Your task to perform on an android device: Go to privacy settings Image 0: 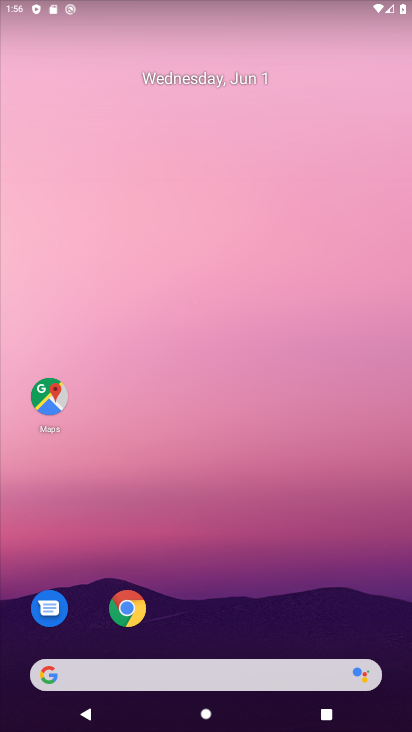
Step 0: drag from (362, 607) to (211, 92)
Your task to perform on an android device: Go to privacy settings Image 1: 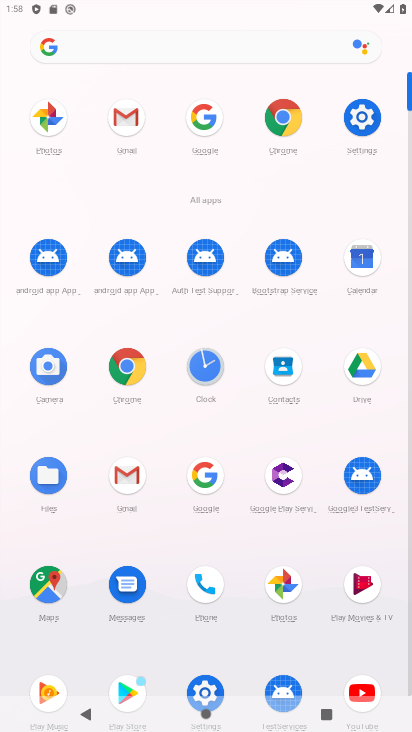
Step 1: click (366, 133)
Your task to perform on an android device: Go to privacy settings Image 2: 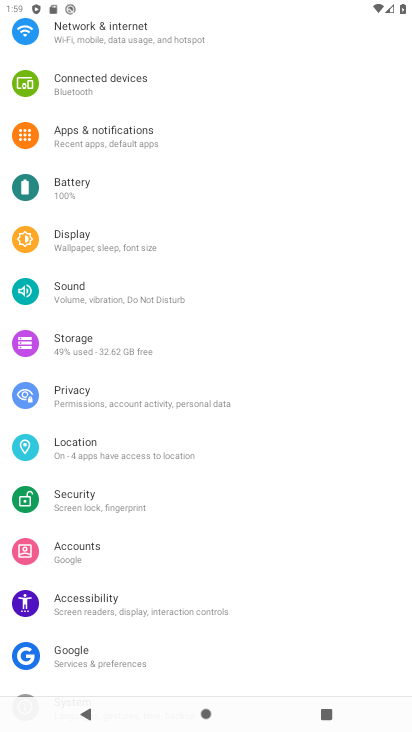
Step 2: click (106, 404)
Your task to perform on an android device: Go to privacy settings Image 3: 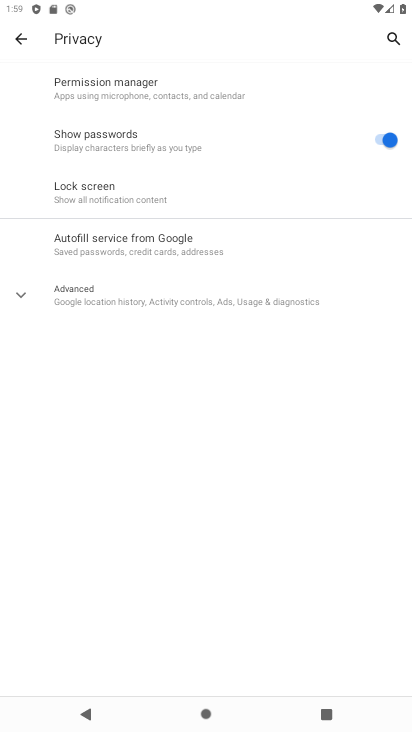
Step 3: task complete